Your task to perform on an android device: Go to wifi settings Image 0: 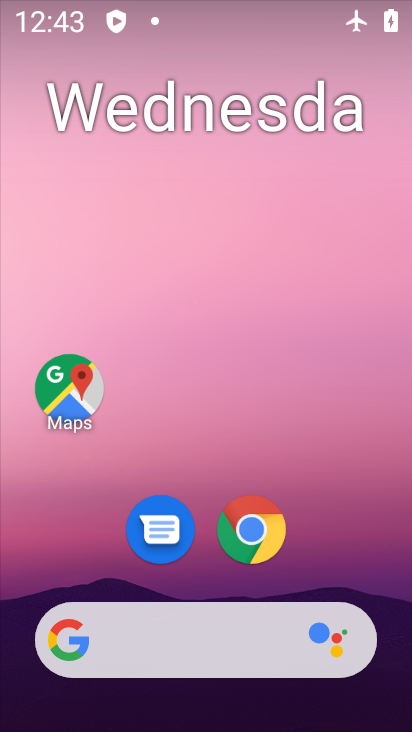
Step 0: drag from (218, 719) to (218, 4)
Your task to perform on an android device: Go to wifi settings Image 1: 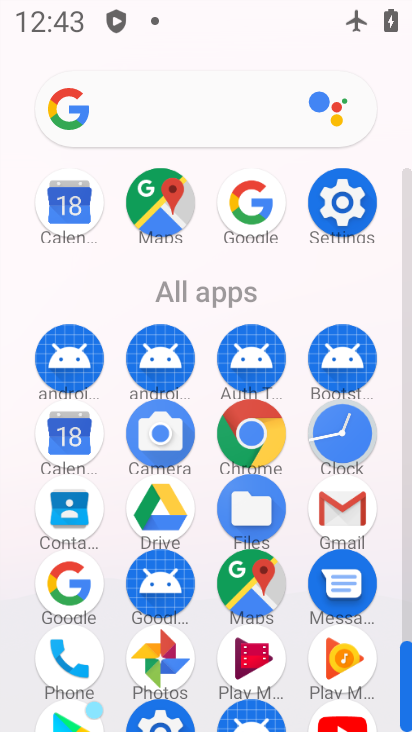
Step 1: click (347, 201)
Your task to perform on an android device: Go to wifi settings Image 2: 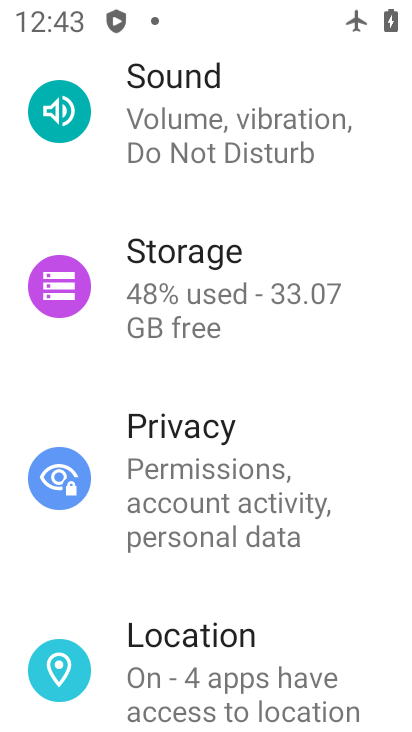
Step 2: drag from (248, 168) to (246, 530)
Your task to perform on an android device: Go to wifi settings Image 3: 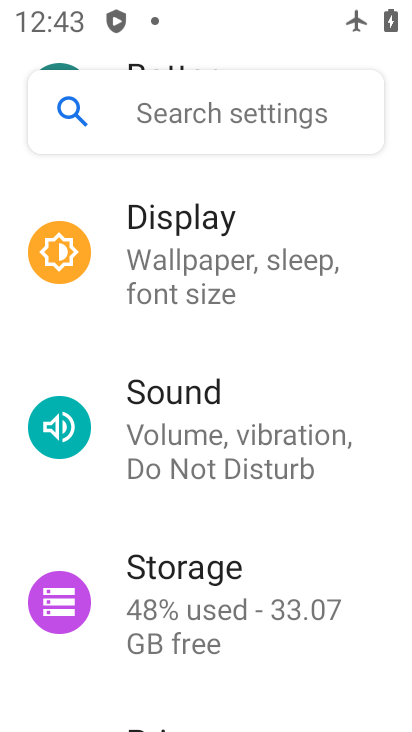
Step 3: drag from (235, 187) to (229, 586)
Your task to perform on an android device: Go to wifi settings Image 4: 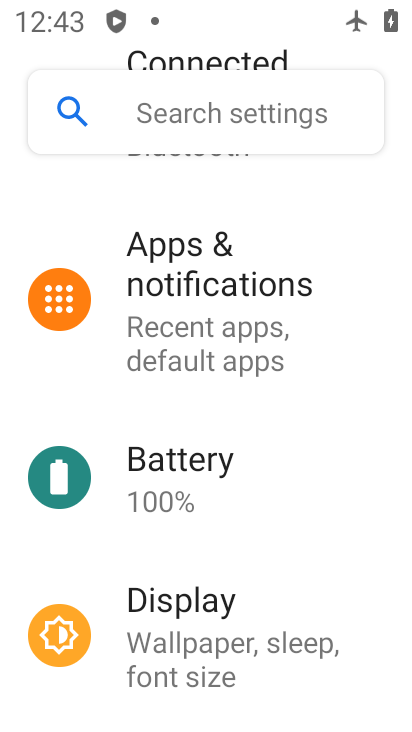
Step 4: drag from (230, 228) to (214, 619)
Your task to perform on an android device: Go to wifi settings Image 5: 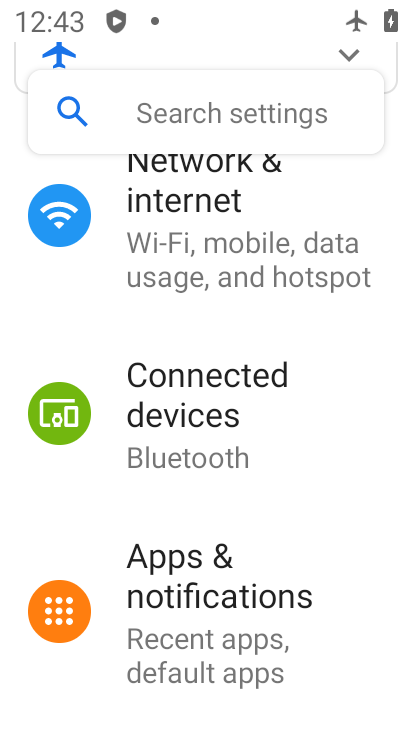
Step 5: drag from (223, 192) to (223, 628)
Your task to perform on an android device: Go to wifi settings Image 6: 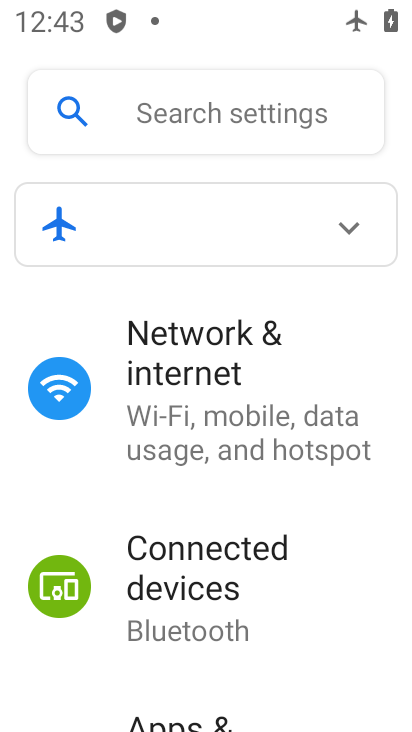
Step 6: click (182, 385)
Your task to perform on an android device: Go to wifi settings Image 7: 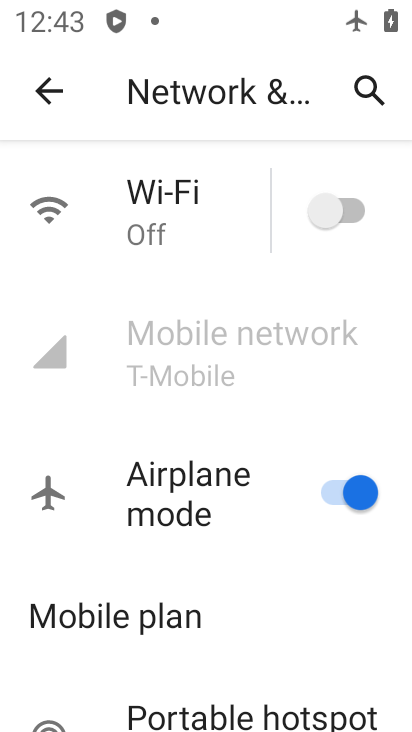
Step 7: click (158, 190)
Your task to perform on an android device: Go to wifi settings Image 8: 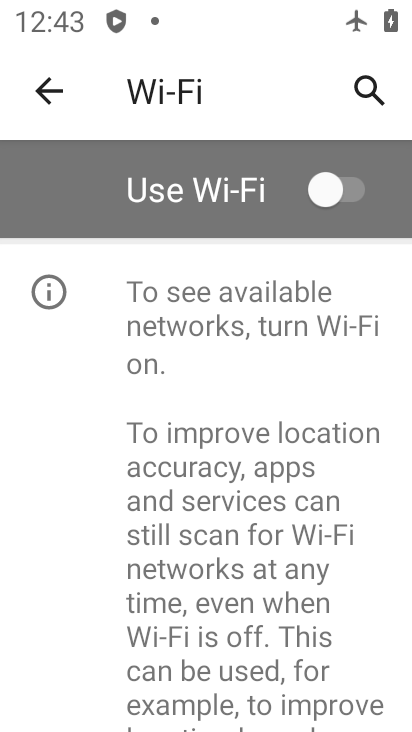
Step 8: task complete